Your task to perform on an android device: clear all cookies in the chrome app Image 0: 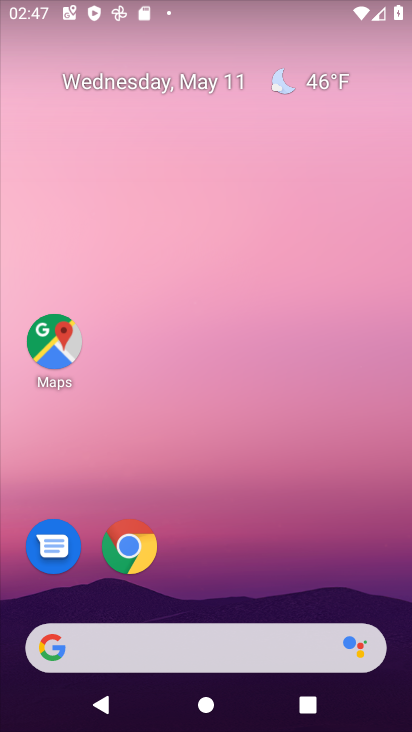
Step 0: drag from (200, 579) to (295, 9)
Your task to perform on an android device: clear all cookies in the chrome app Image 1: 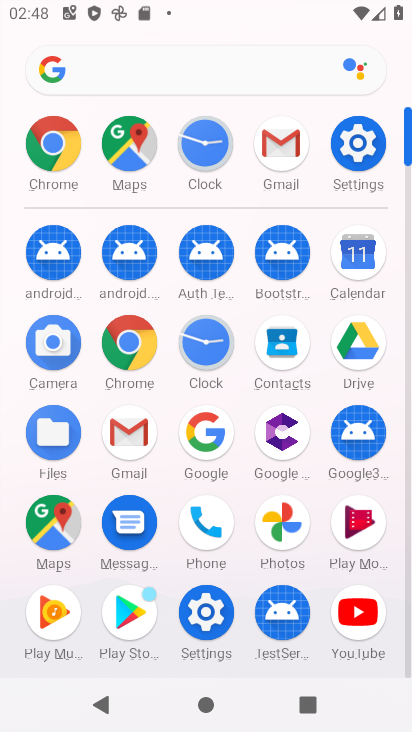
Step 1: click (118, 327)
Your task to perform on an android device: clear all cookies in the chrome app Image 2: 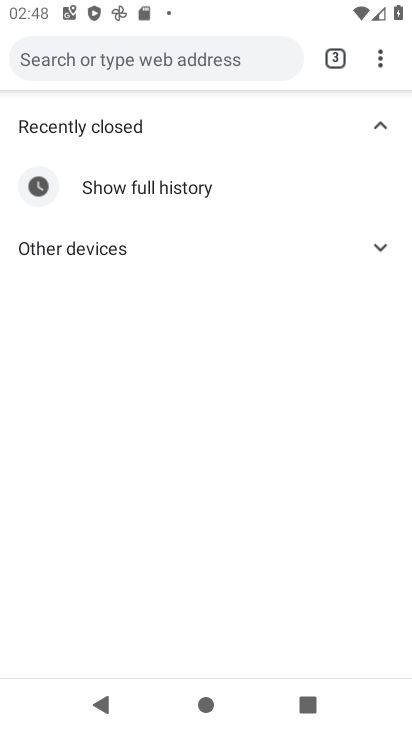
Step 2: drag from (162, 525) to (252, 312)
Your task to perform on an android device: clear all cookies in the chrome app Image 3: 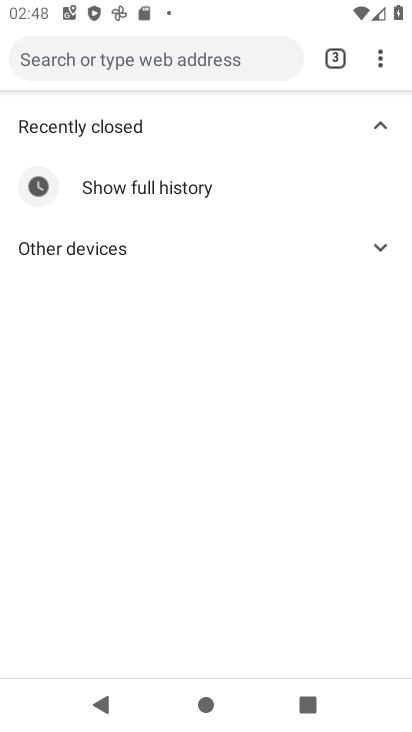
Step 3: click (390, 47)
Your task to perform on an android device: clear all cookies in the chrome app Image 4: 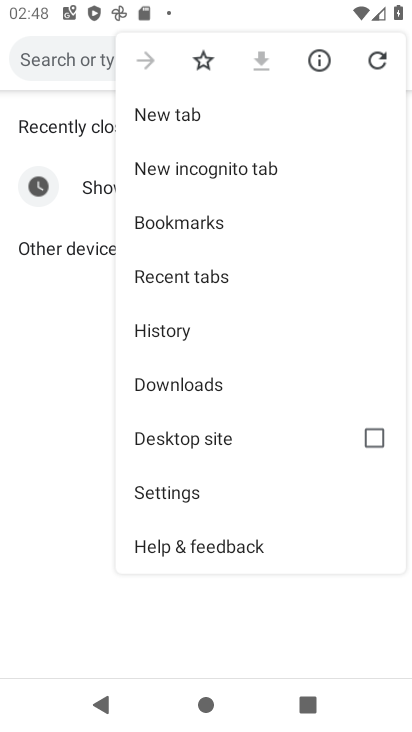
Step 4: click (195, 321)
Your task to perform on an android device: clear all cookies in the chrome app Image 5: 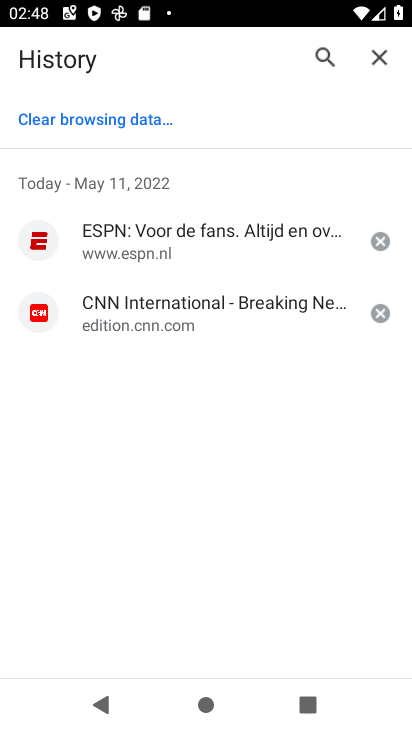
Step 5: click (52, 130)
Your task to perform on an android device: clear all cookies in the chrome app Image 6: 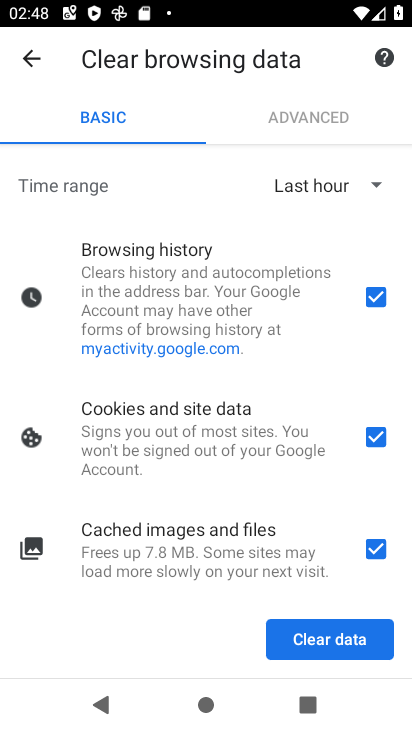
Step 6: click (371, 303)
Your task to perform on an android device: clear all cookies in the chrome app Image 7: 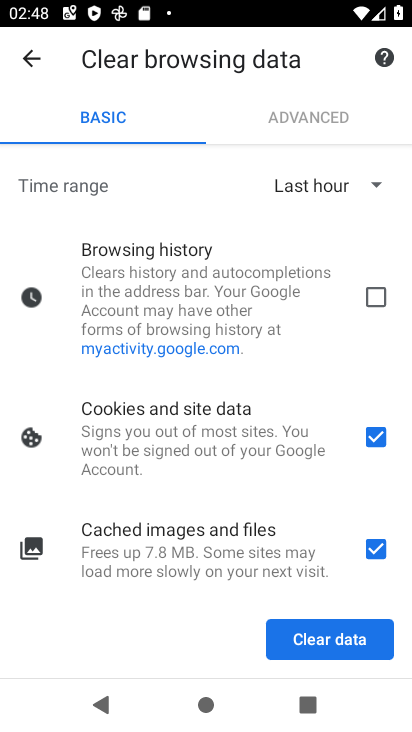
Step 7: click (316, 638)
Your task to perform on an android device: clear all cookies in the chrome app Image 8: 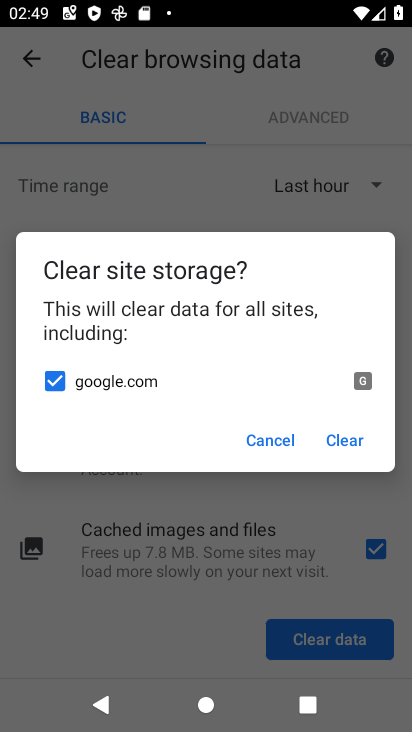
Step 8: click (361, 436)
Your task to perform on an android device: clear all cookies in the chrome app Image 9: 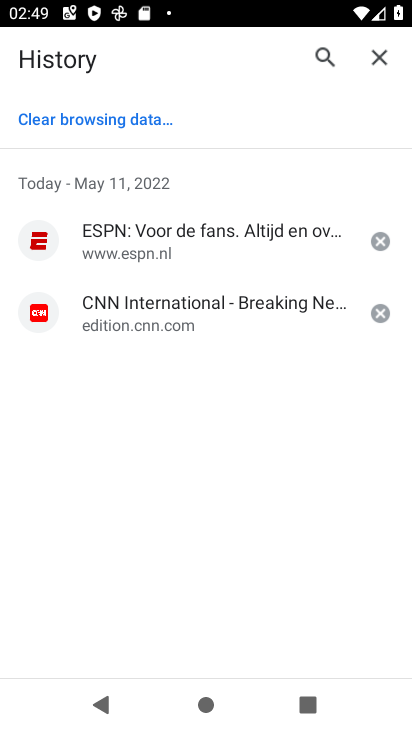
Step 9: task complete